Your task to perform on an android device: Turn off the flashlight Image 0: 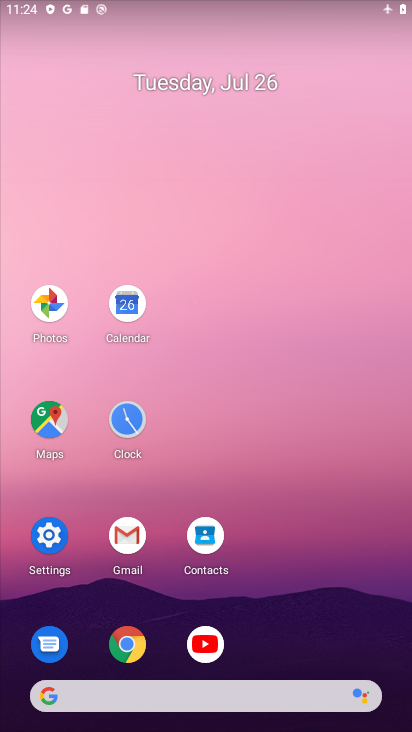
Step 0: click (39, 541)
Your task to perform on an android device: Turn off the flashlight Image 1: 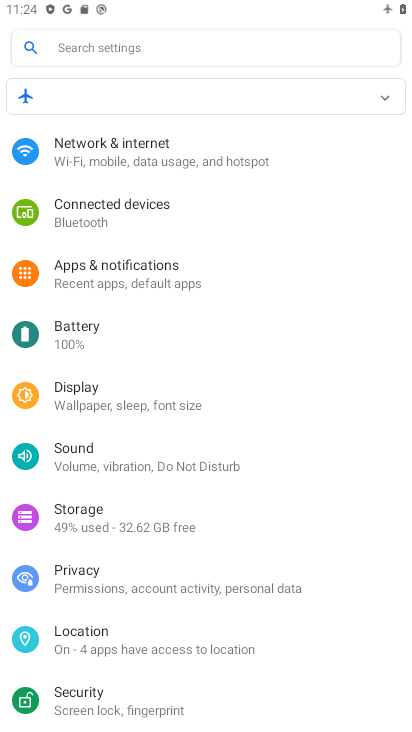
Step 1: click (63, 389)
Your task to perform on an android device: Turn off the flashlight Image 2: 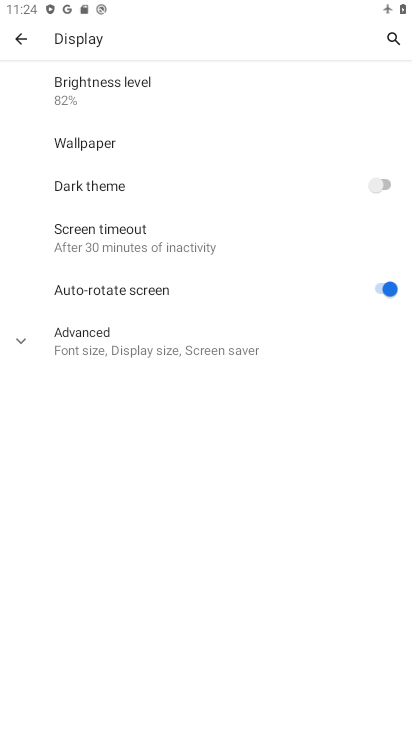
Step 2: task complete